Your task to perform on an android device: manage bookmarks in the chrome app Image 0: 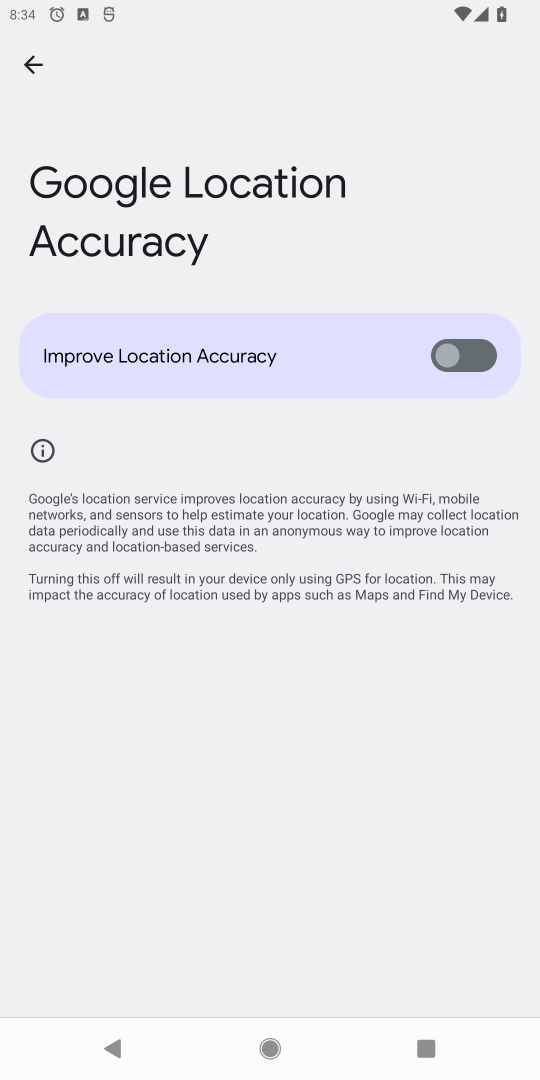
Step 0: press home button
Your task to perform on an android device: manage bookmarks in the chrome app Image 1: 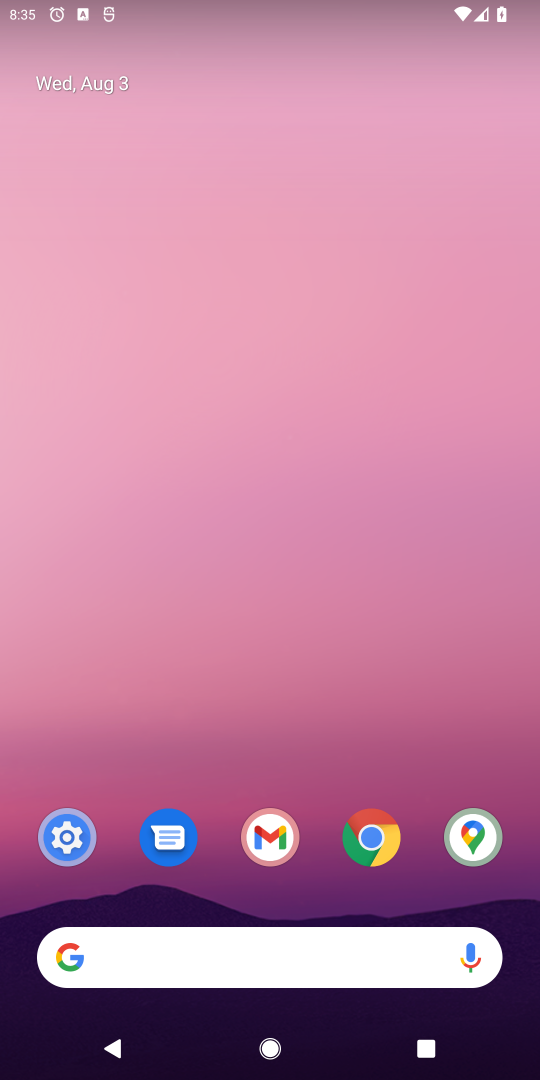
Step 1: click (380, 843)
Your task to perform on an android device: manage bookmarks in the chrome app Image 2: 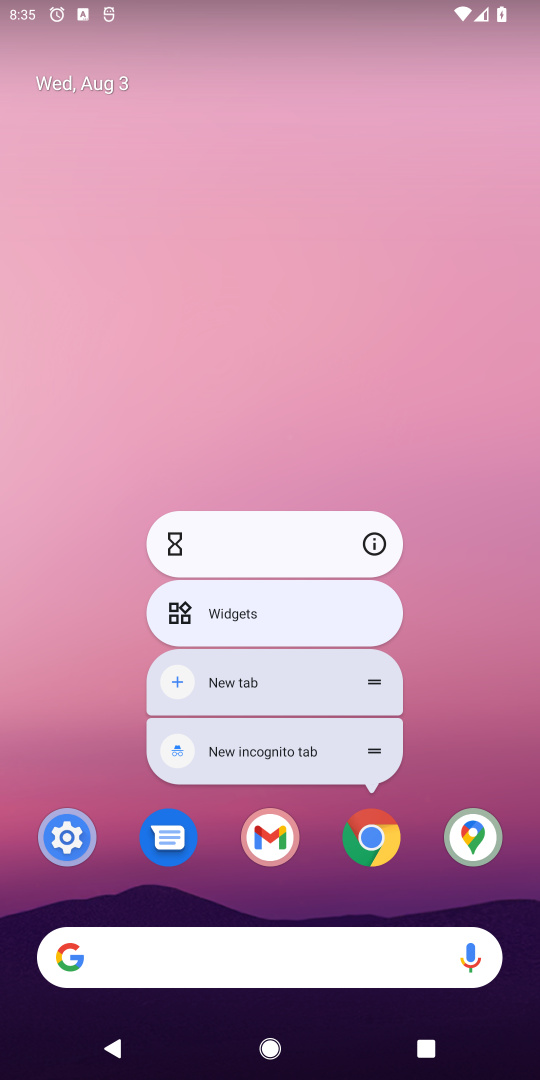
Step 2: click (380, 843)
Your task to perform on an android device: manage bookmarks in the chrome app Image 3: 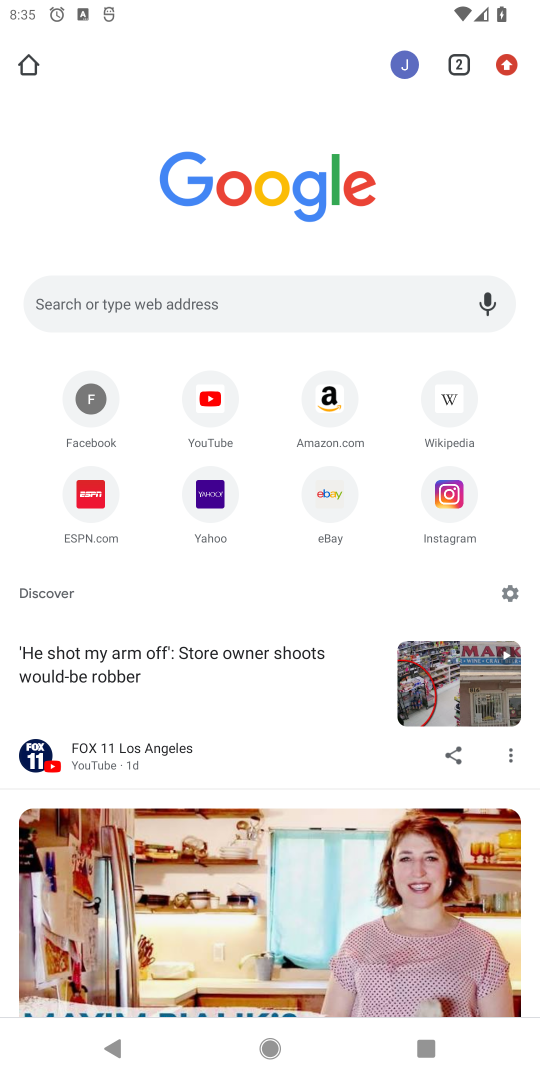
Step 3: drag from (508, 67) to (319, 434)
Your task to perform on an android device: manage bookmarks in the chrome app Image 4: 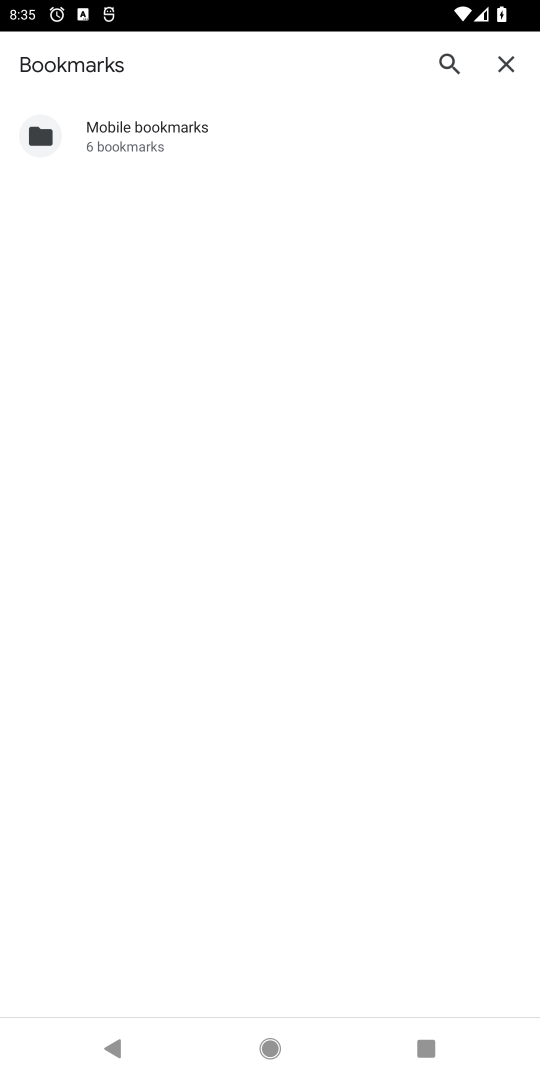
Step 4: click (158, 141)
Your task to perform on an android device: manage bookmarks in the chrome app Image 5: 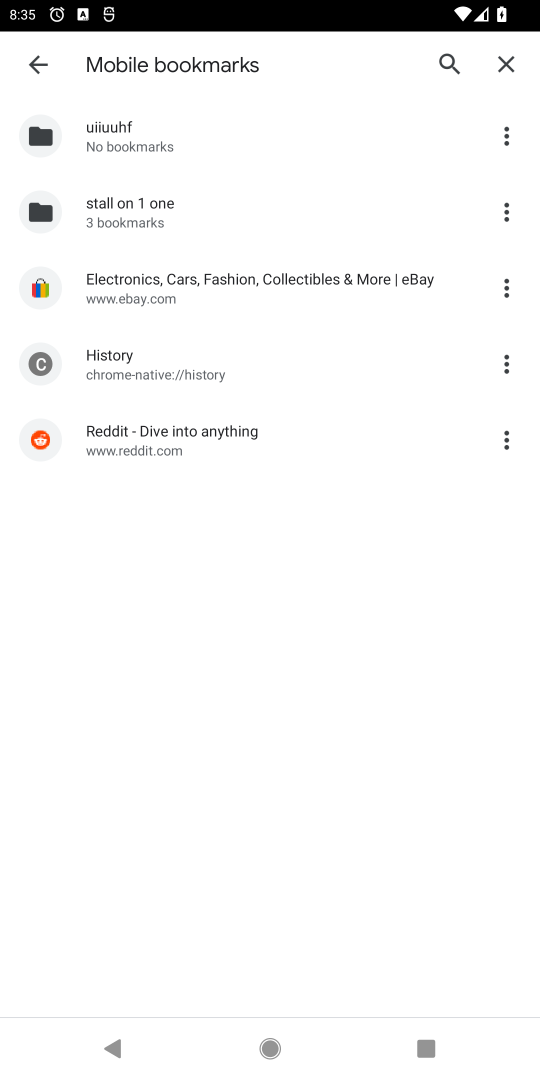
Step 5: click (147, 227)
Your task to perform on an android device: manage bookmarks in the chrome app Image 6: 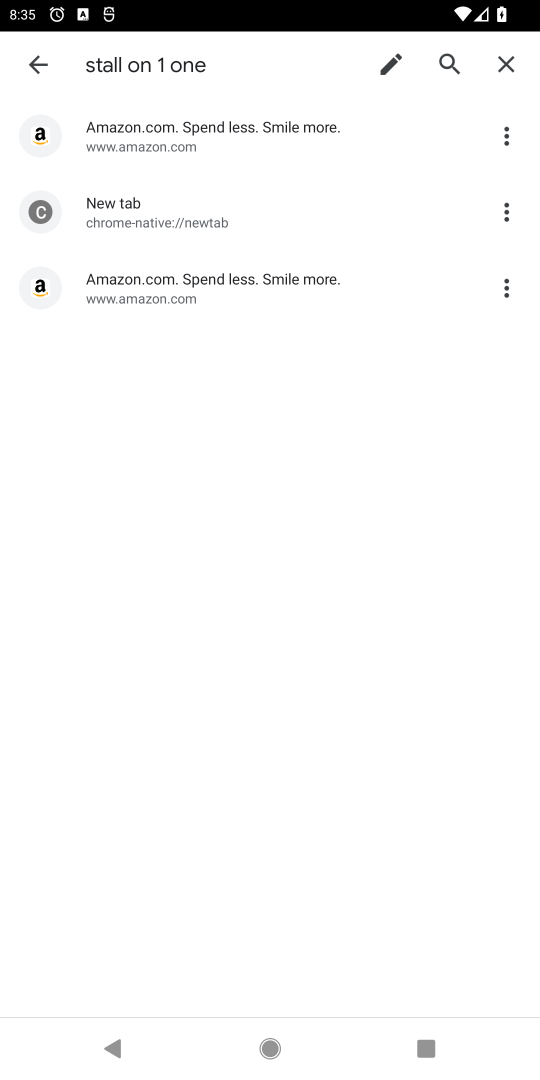
Step 6: click (511, 136)
Your task to perform on an android device: manage bookmarks in the chrome app Image 7: 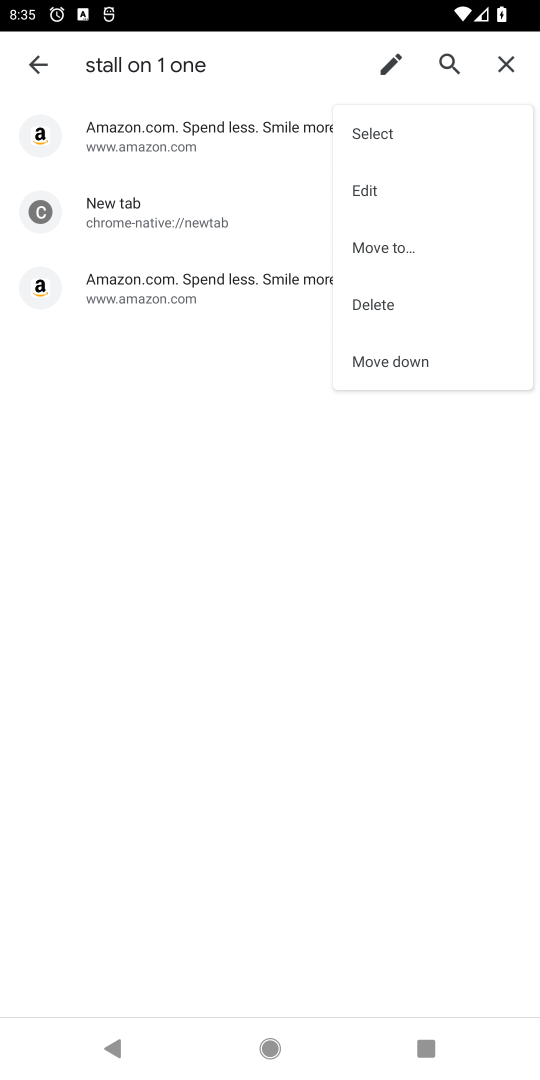
Step 7: click (374, 199)
Your task to perform on an android device: manage bookmarks in the chrome app Image 8: 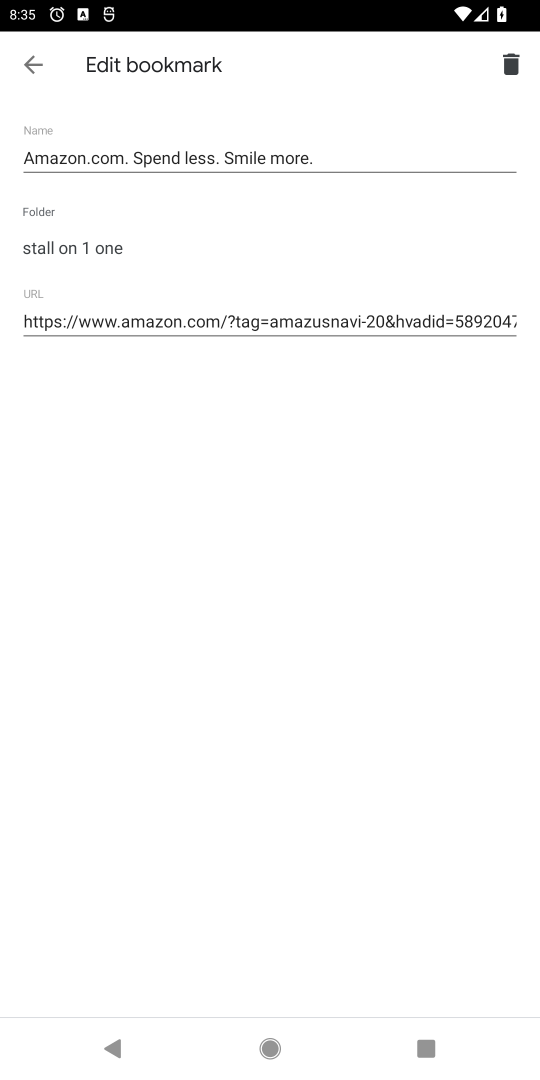
Step 8: task complete